Your task to perform on an android device: empty trash in google photos Image 0: 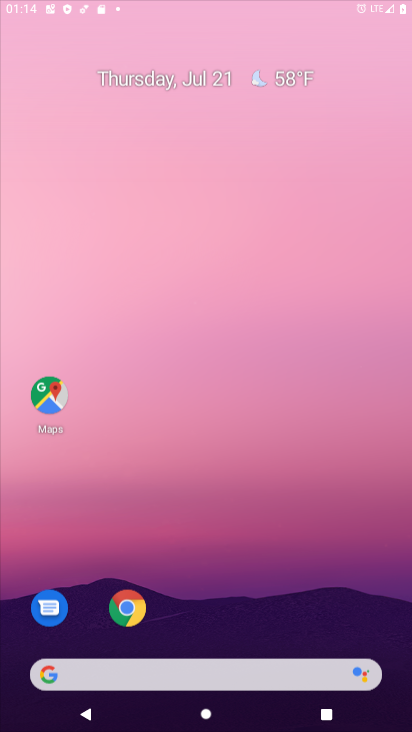
Step 0: press home button
Your task to perform on an android device: empty trash in google photos Image 1: 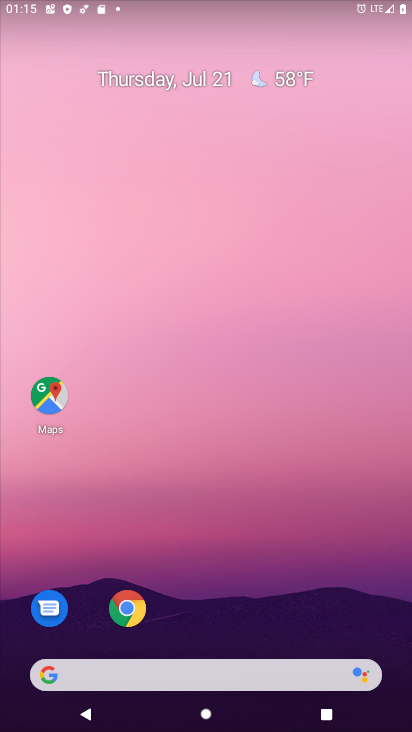
Step 1: drag from (216, 630) to (223, 37)
Your task to perform on an android device: empty trash in google photos Image 2: 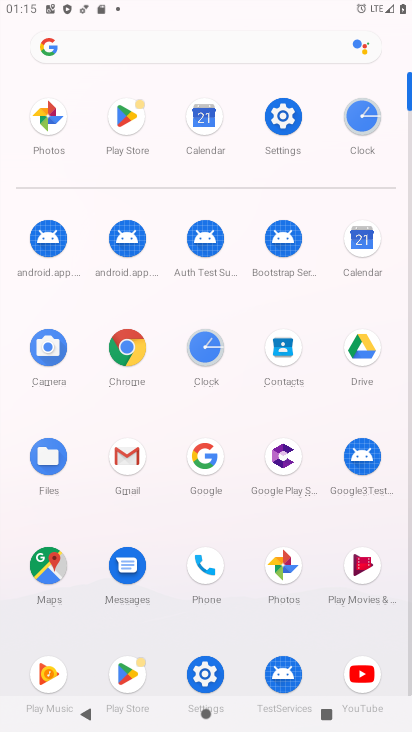
Step 2: click (277, 555)
Your task to perform on an android device: empty trash in google photos Image 3: 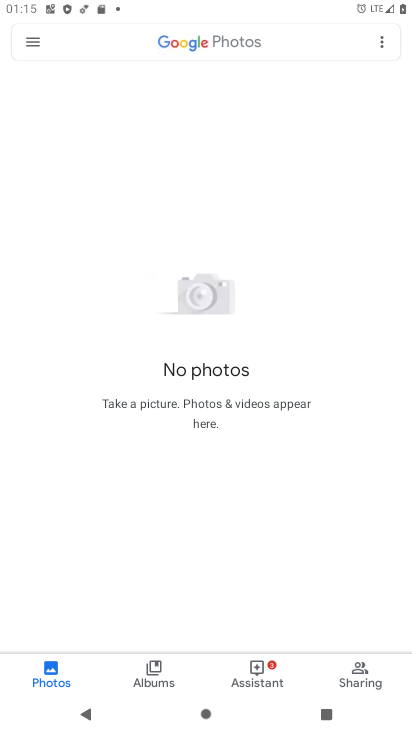
Step 3: click (29, 33)
Your task to perform on an android device: empty trash in google photos Image 4: 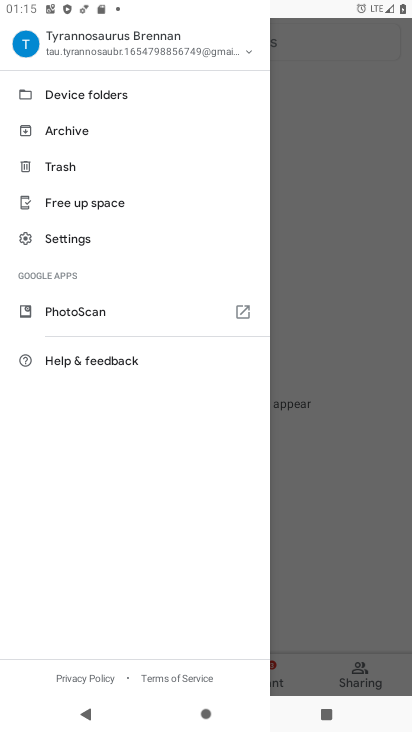
Step 4: click (78, 160)
Your task to perform on an android device: empty trash in google photos Image 5: 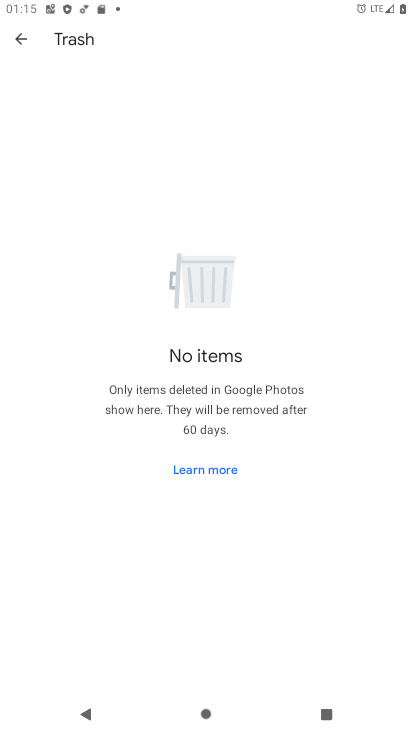
Step 5: task complete